Your task to perform on an android device: Go to Google maps Image 0: 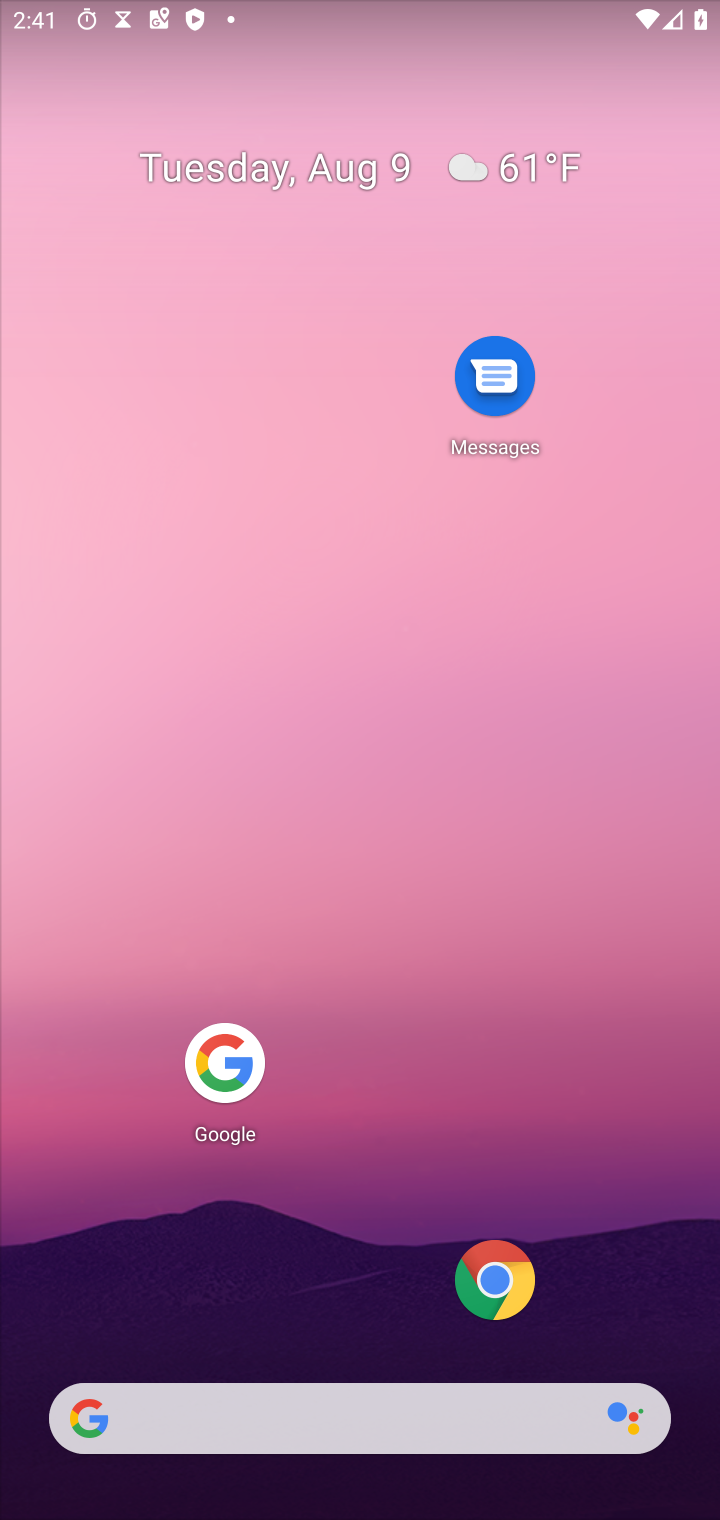
Step 0: press home button
Your task to perform on an android device: Go to Google maps Image 1: 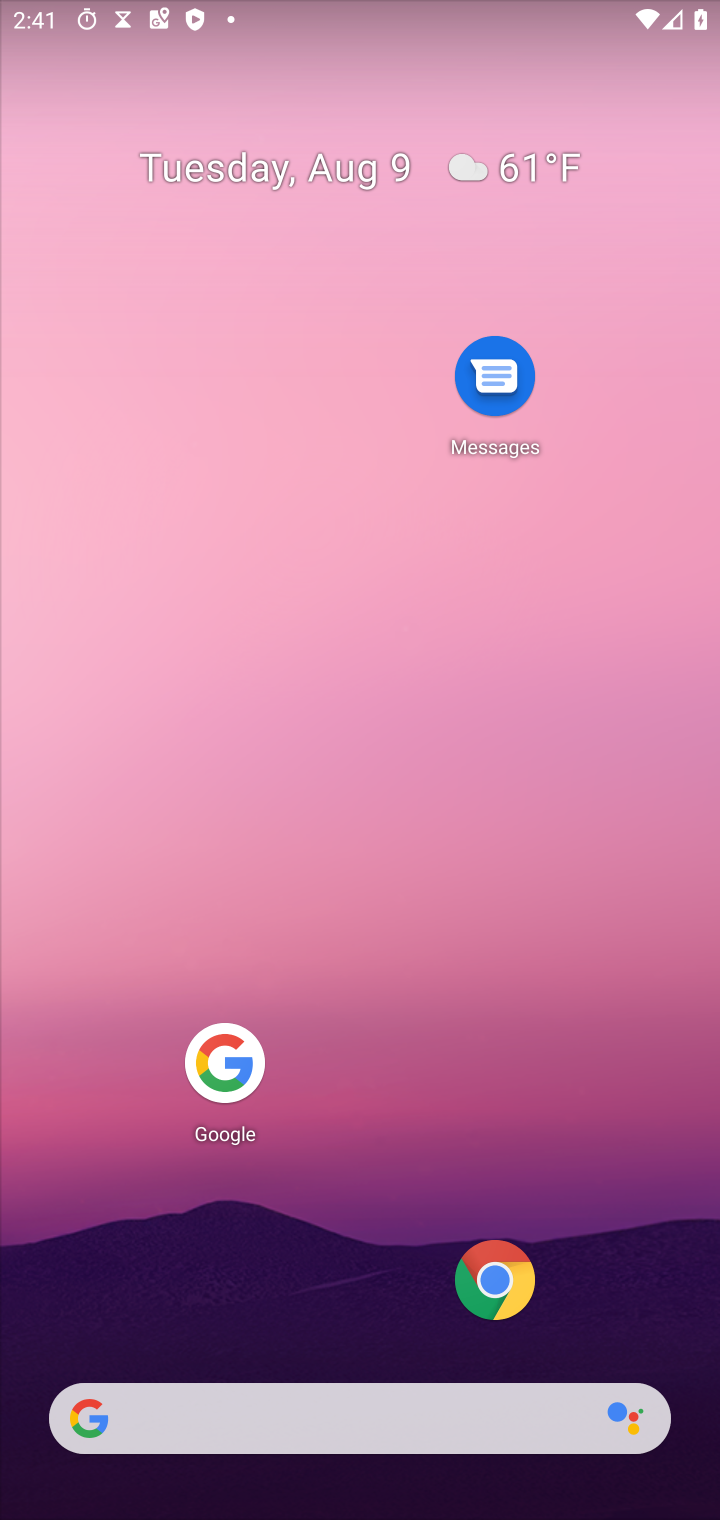
Step 1: drag from (354, 1143) to (518, 229)
Your task to perform on an android device: Go to Google maps Image 2: 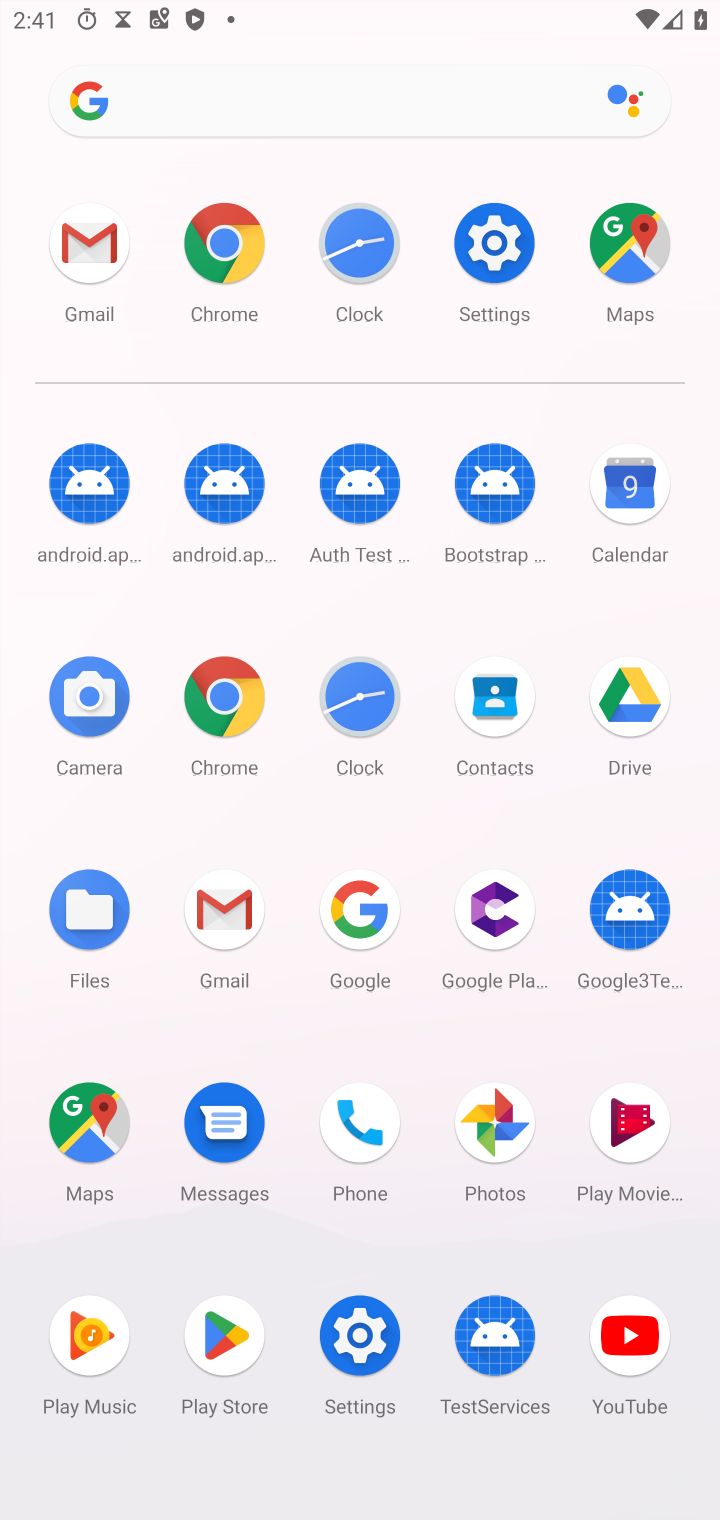
Step 2: click (631, 226)
Your task to perform on an android device: Go to Google maps Image 3: 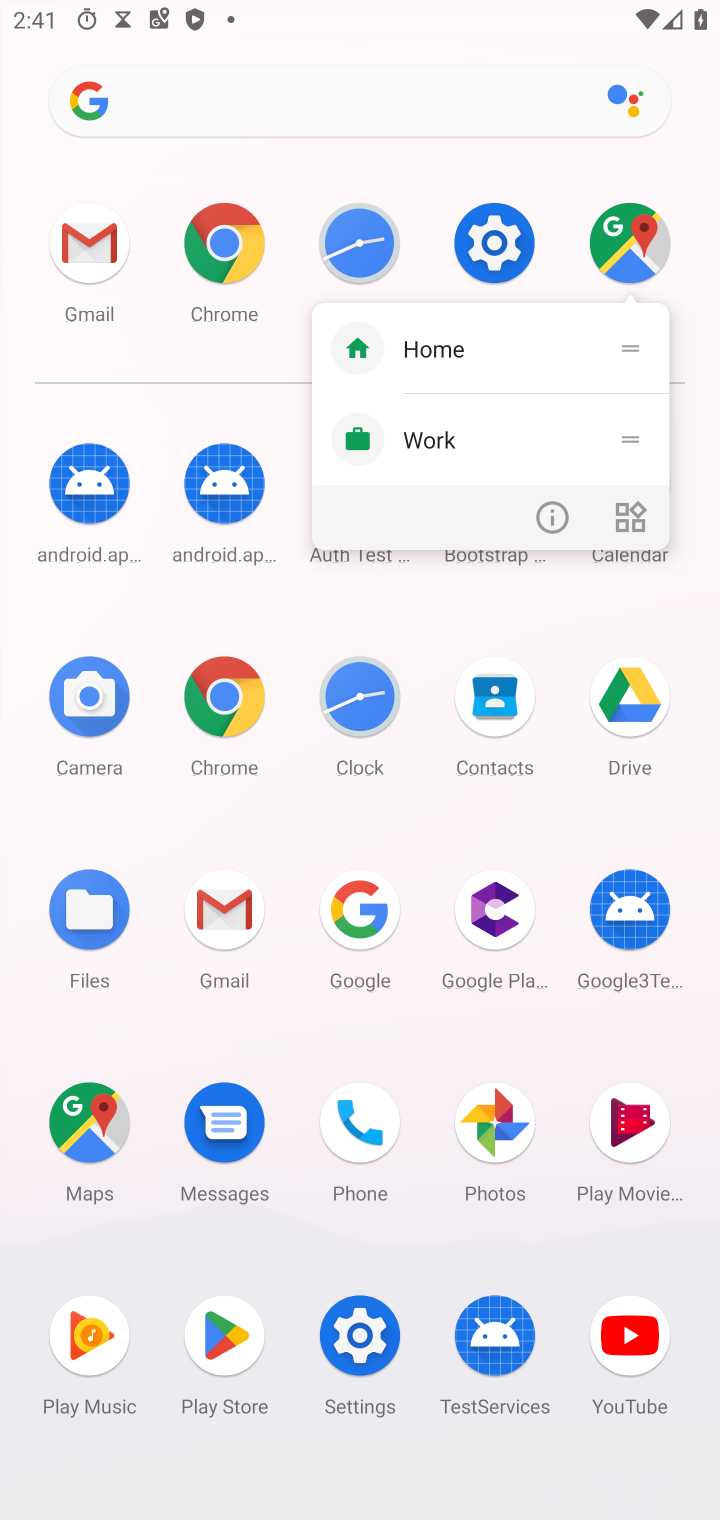
Step 3: click (610, 238)
Your task to perform on an android device: Go to Google maps Image 4: 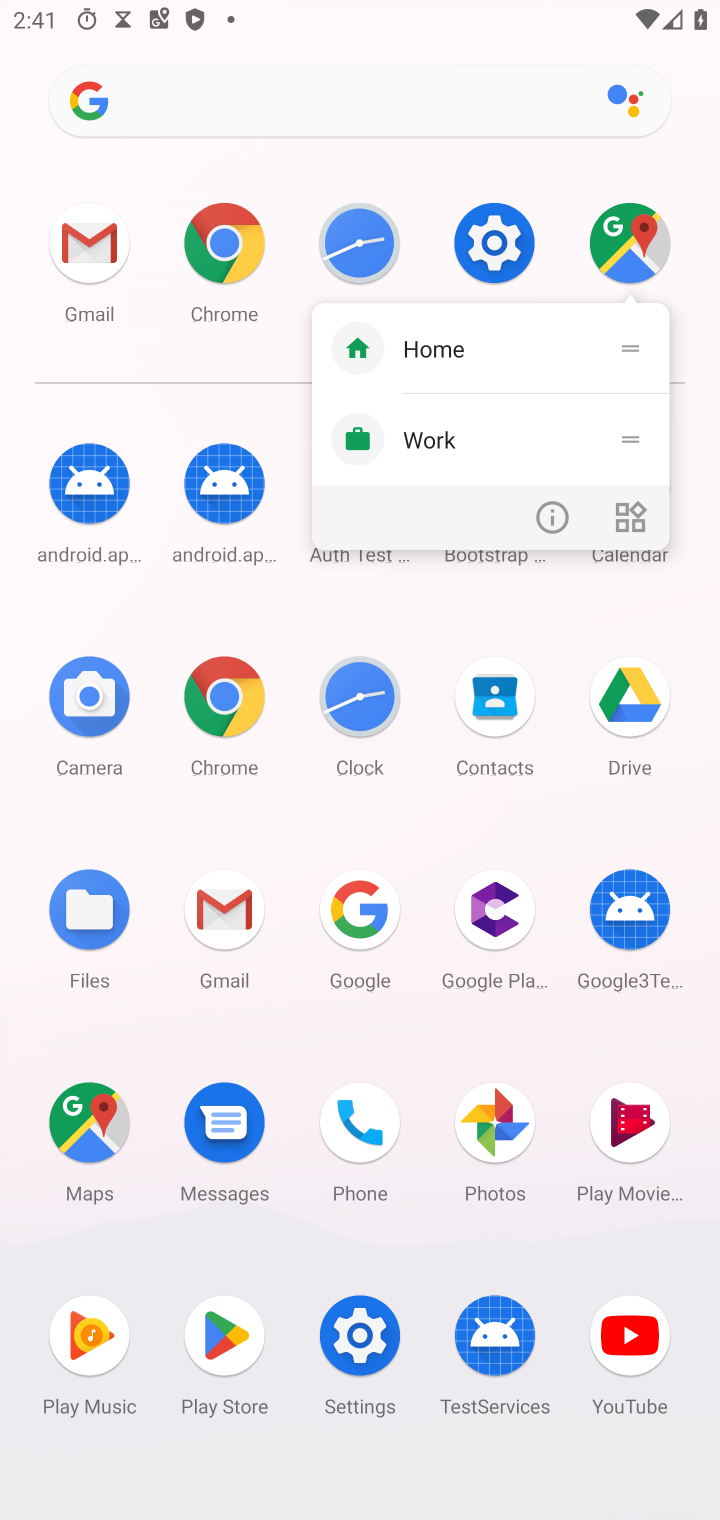
Step 4: click (610, 238)
Your task to perform on an android device: Go to Google maps Image 5: 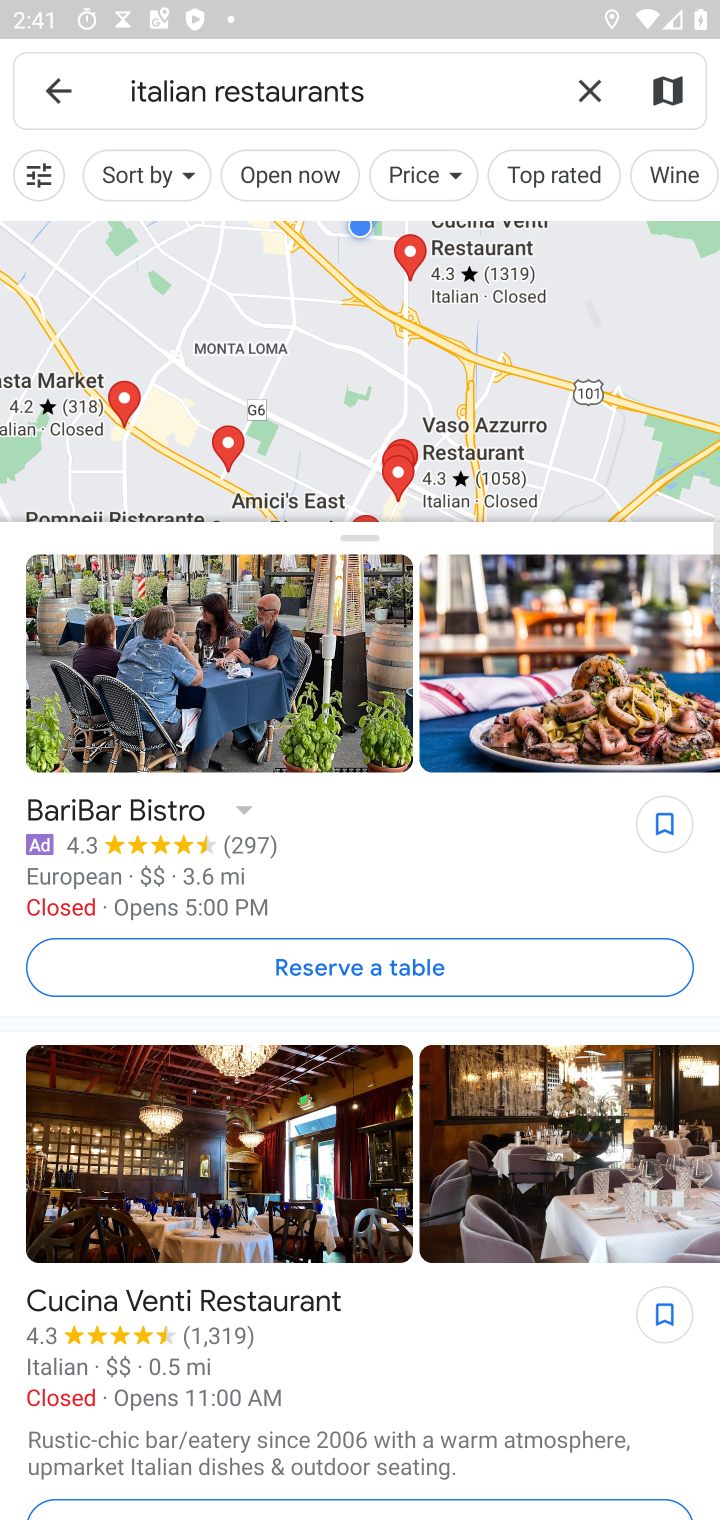
Step 5: click (48, 99)
Your task to perform on an android device: Go to Google maps Image 6: 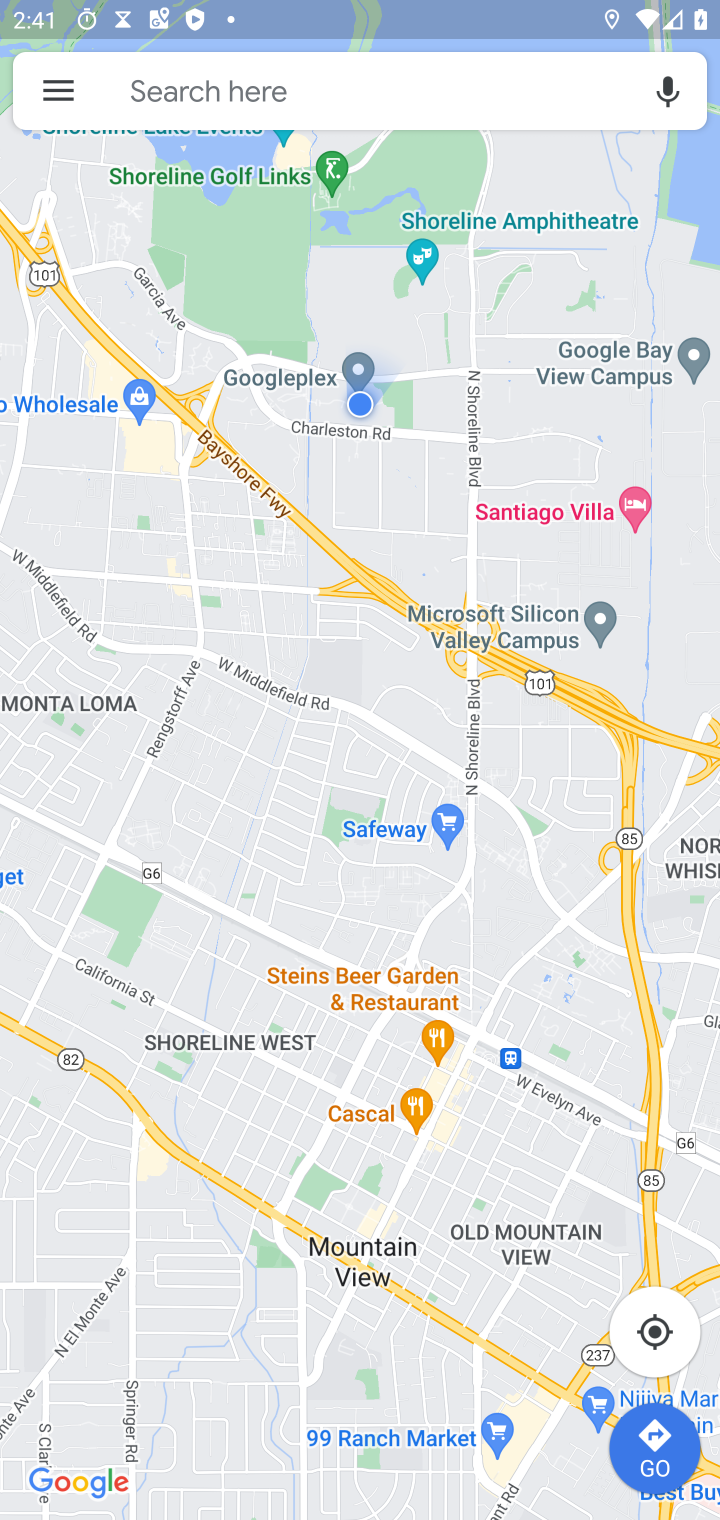
Step 6: task complete